Your task to perform on an android device: What's the weather going to be tomorrow? Image 0: 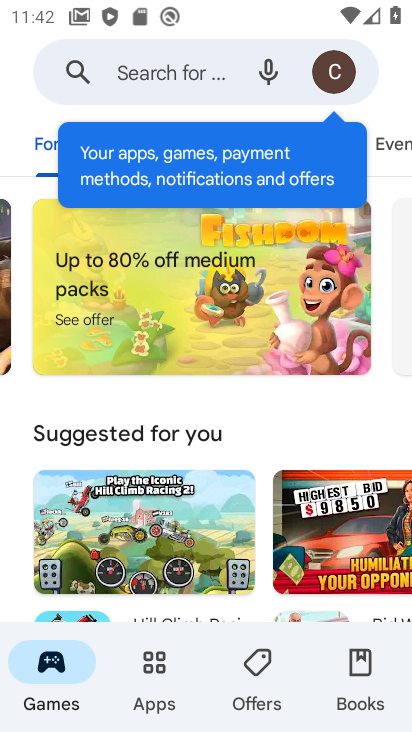
Step 0: press home button
Your task to perform on an android device: What's the weather going to be tomorrow? Image 1: 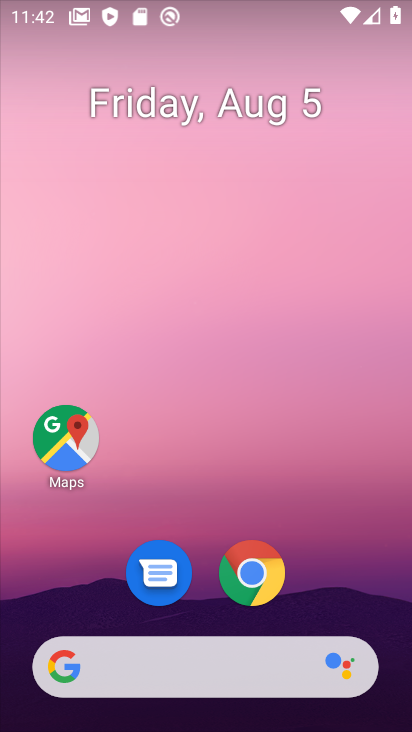
Step 1: click (155, 662)
Your task to perform on an android device: What's the weather going to be tomorrow? Image 2: 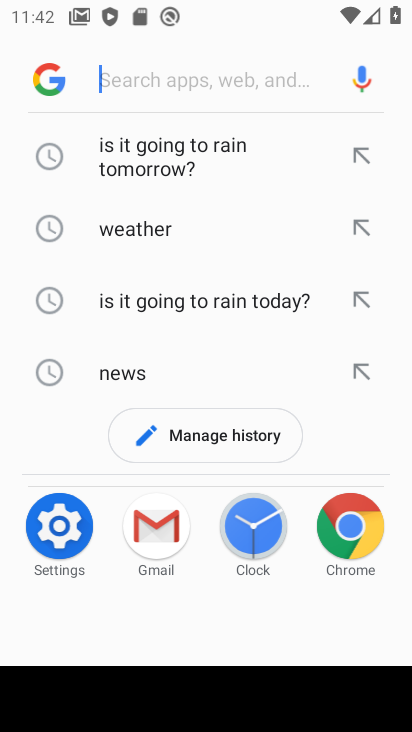
Step 2: type "What's the weather going to be tomorrow?"
Your task to perform on an android device: What's the weather going to be tomorrow? Image 3: 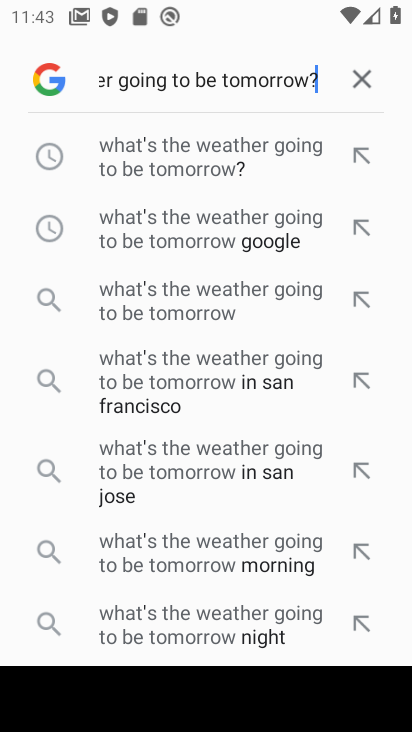
Step 3: press enter
Your task to perform on an android device: What's the weather going to be tomorrow? Image 4: 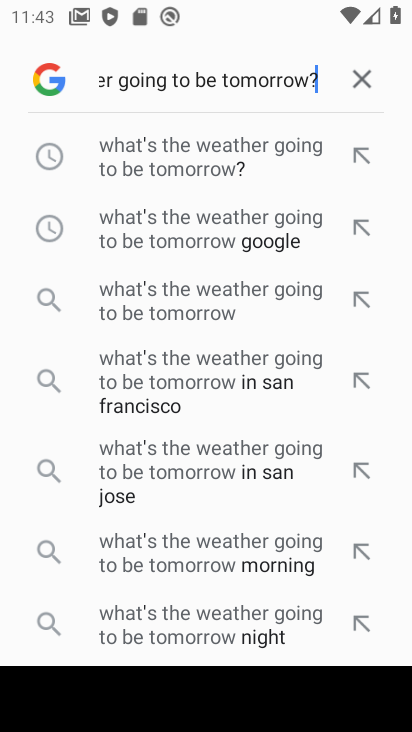
Step 4: type ""
Your task to perform on an android device: What's the weather going to be tomorrow? Image 5: 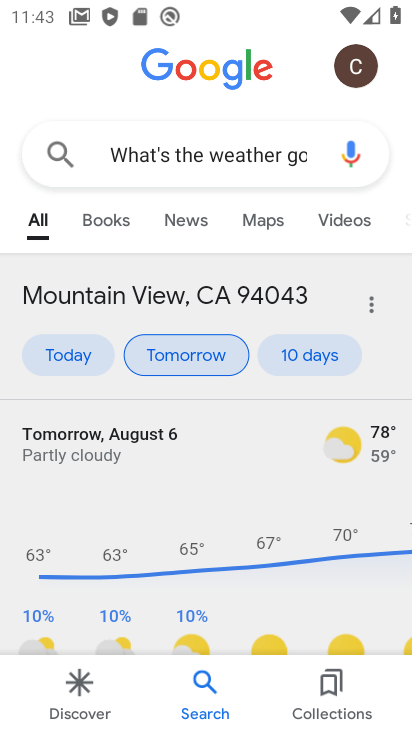
Step 5: task complete